Your task to perform on an android device: star an email in the gmail app Image 0: 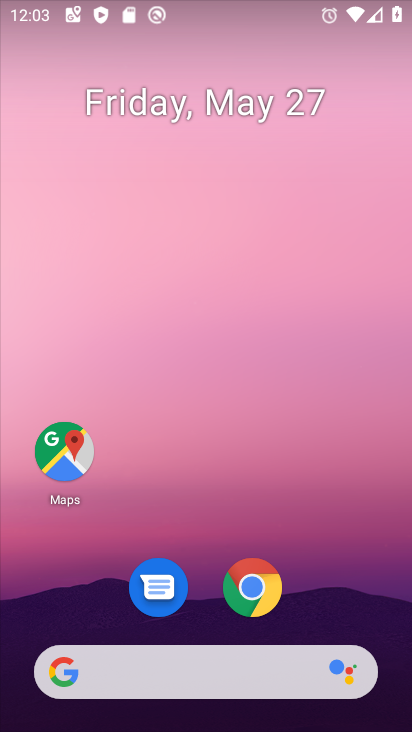
Step 0: drag from (257, 688) to (335, 119)
Your task to perform on an android device: star an email in the gmail app Image 1: 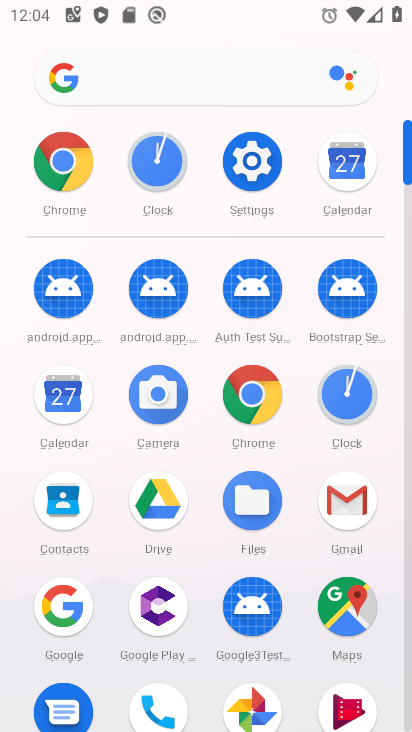
Step 1: click (344, 494)
Your task to perform on an android device: star an email in the gmail app Image 2: 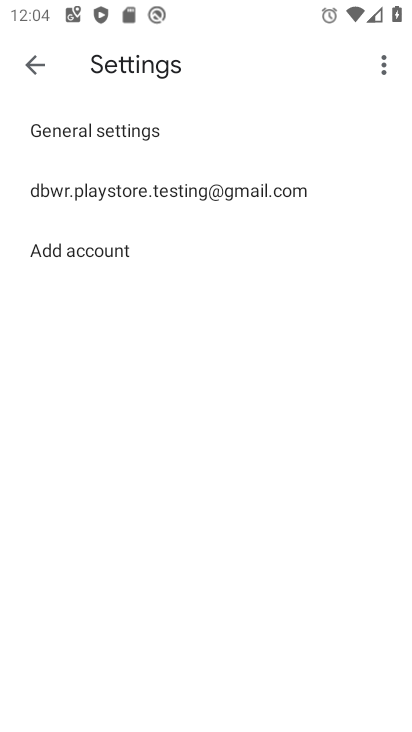
Step 2: click (25, 66)
Your task to perform on an android device: star an email in the gmail app Image 3: 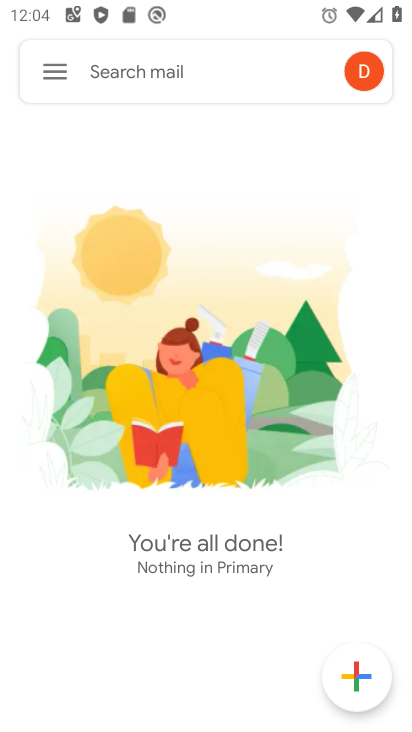
Step 3: click (53, 72)
Your task to perform on an android device: star an email in the gmail app Image 4: 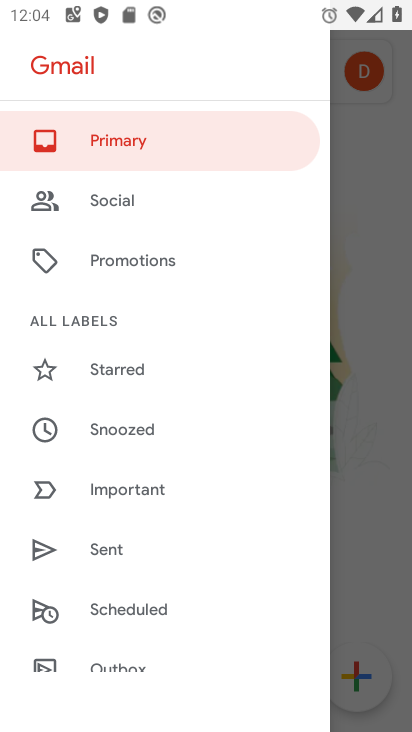
Step 4: click (141, 368)
Your task to perform on an android device: star an email in the gmail app Image 5: 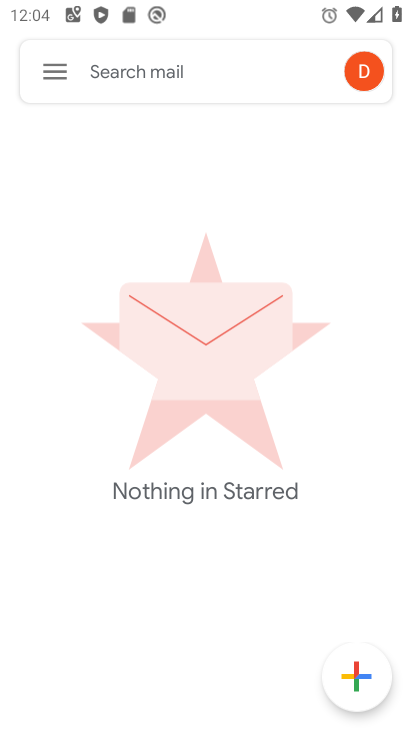
Step 5: task complete